Your task to perform on an android device: Open settings Image 0: 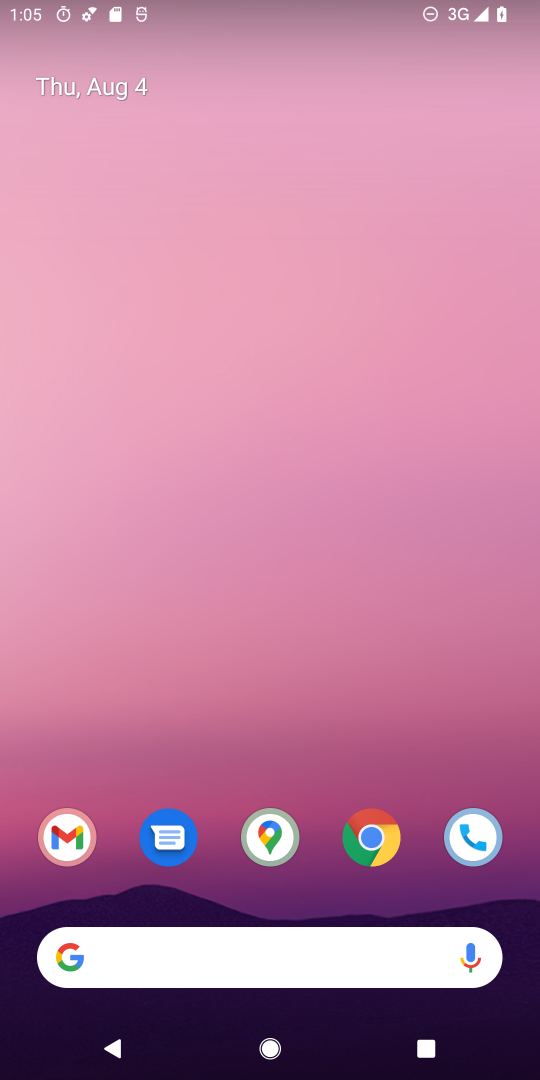
Step 0: drag from (489, 902) to (202, 22)
Your task to perform on an android device: Open settings Image 1: 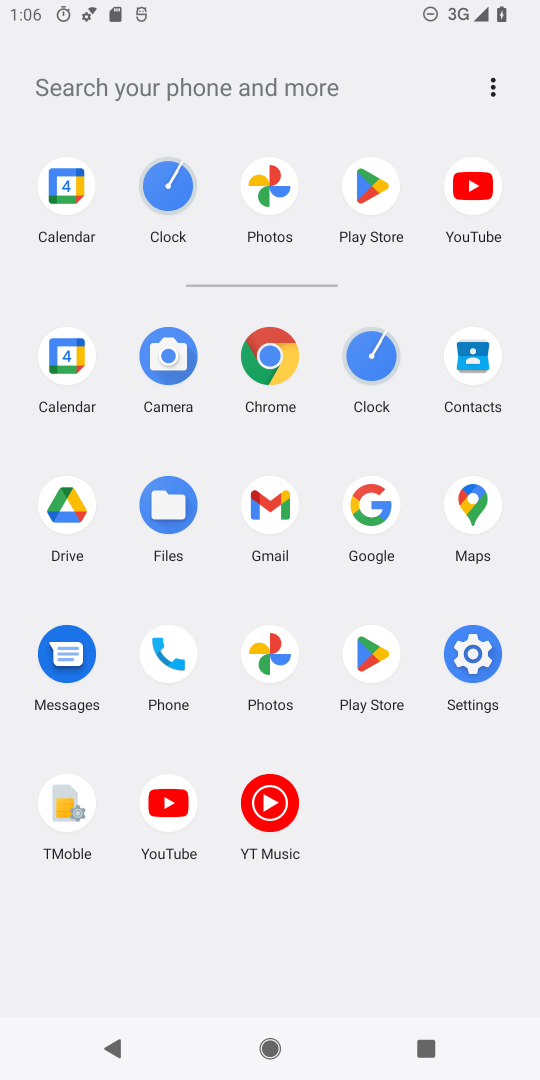
Step 1: click (471, 657)
Your task to perform on an android device: Open settings Image 2: 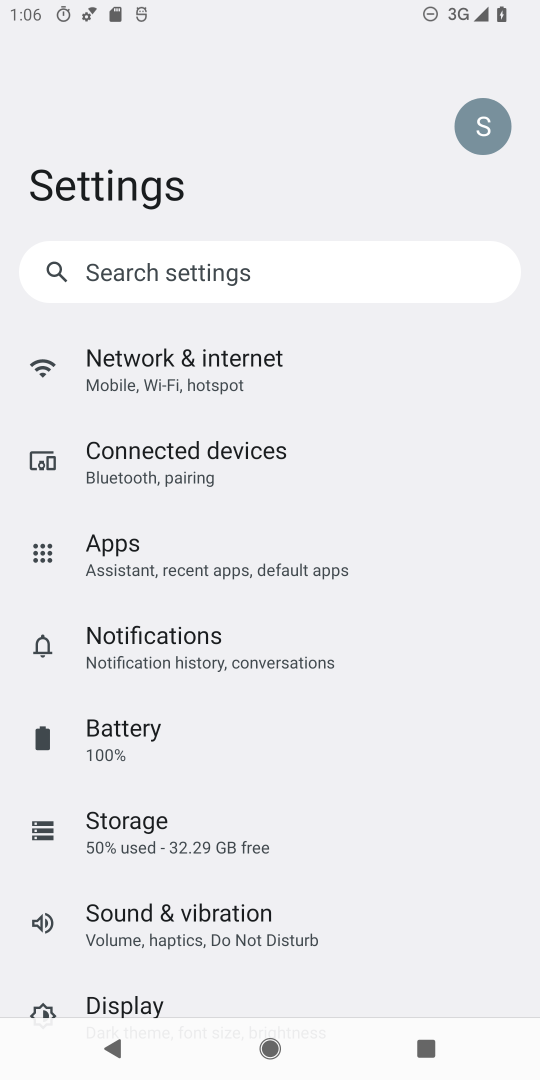
Step 2: task complete